Your task to perform on an android device: open app "TextNow: Call + Text Unlimited" (install if not already installed), go to login, and select forgot password Image 0: 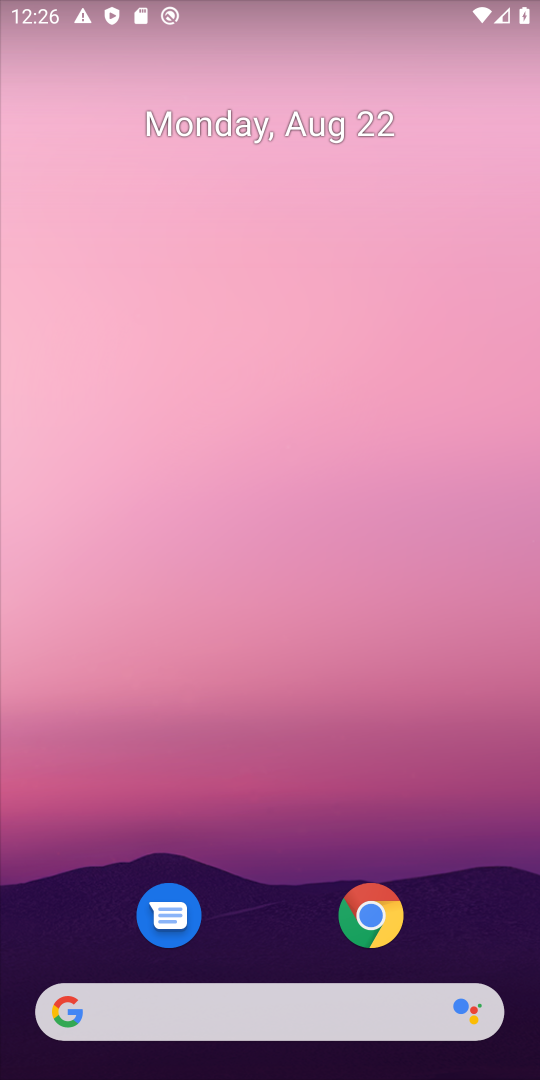
Step 0: drag from (306, 953) to (354, 1045)
Your task to perform on an android device: open app "TextNow: Call + Text Unlimited" (install if not already installed), go to login, and select forgot password Image 1: 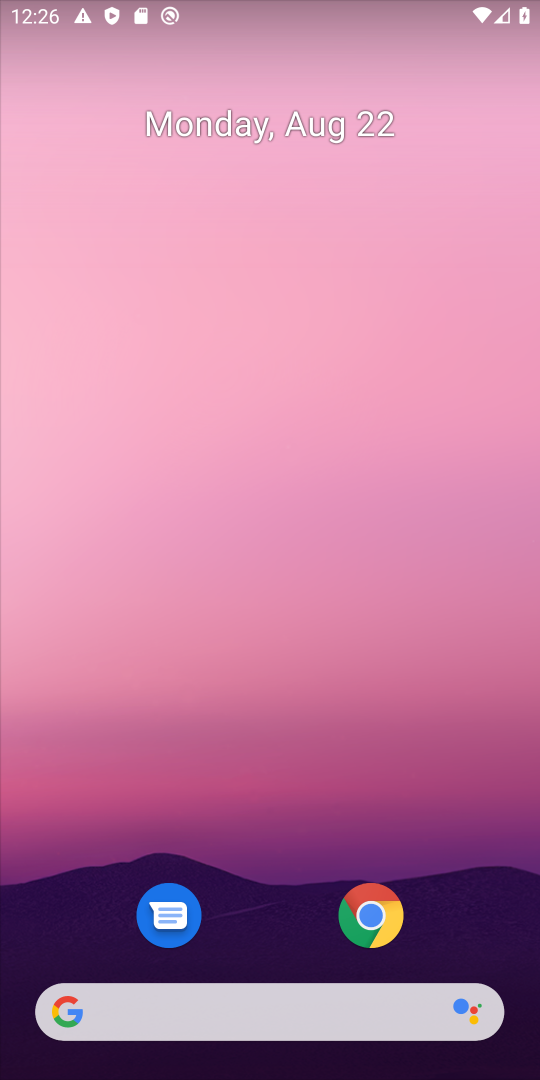
Step 1: drag from (279, 946) to (222, 0)
Your task to perform on an android device: open app "TextNow: Call + Text Unlimited" (install if not already installed), go to login, and select forgot password Image 2: 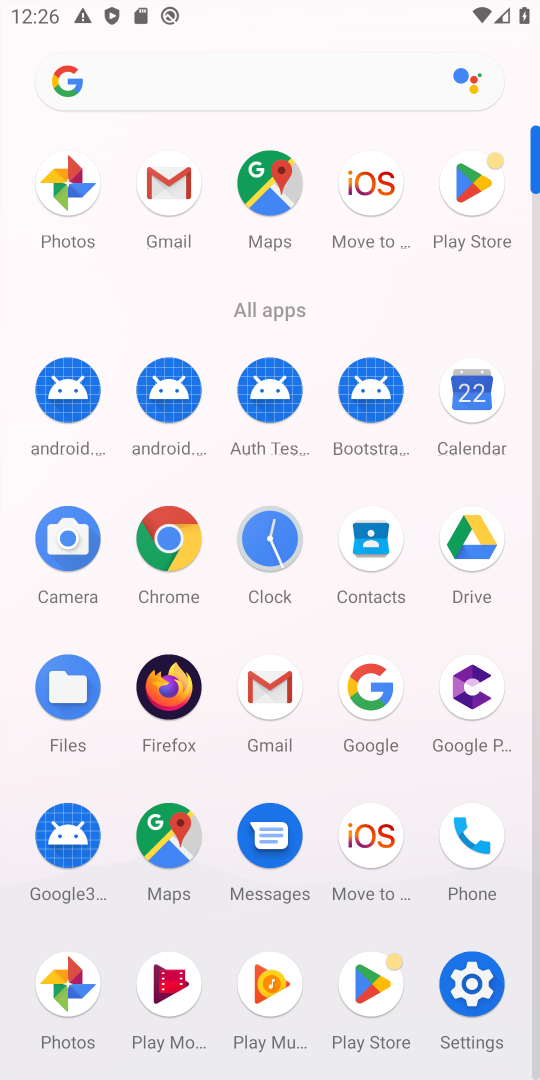
Step 2: click (358, 969)
Your task to perform on an android device: open app "TextNow: Call + Text Unlimited" (install if not already installed), go to login, and select forgot password Image 3: 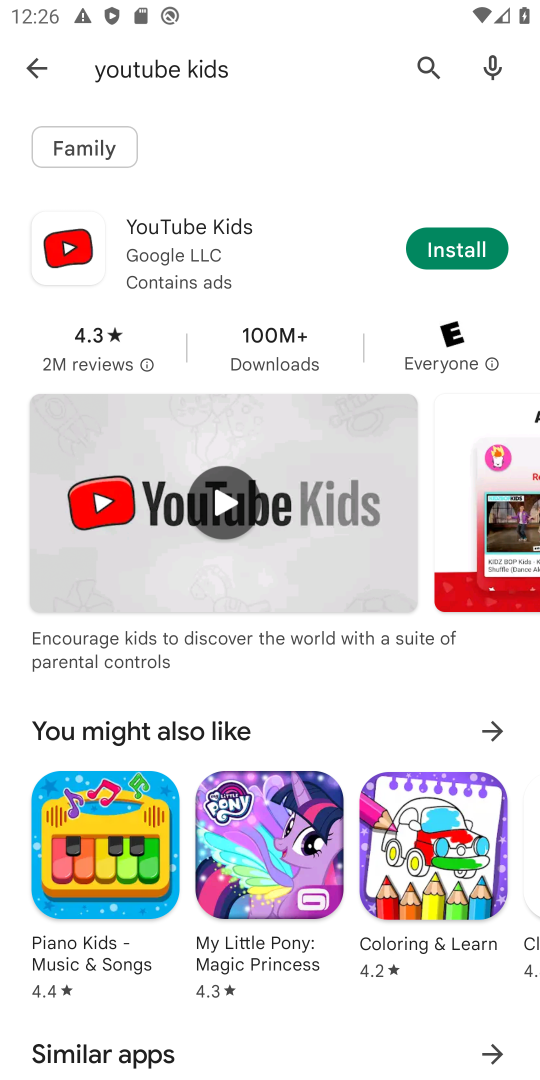
Step 3: click (27, 60)
Your task to perform on an android device: open app "TextNow: Call + Text Unlimited" (install if not already installed), go to login, and select forgot password Image 4: 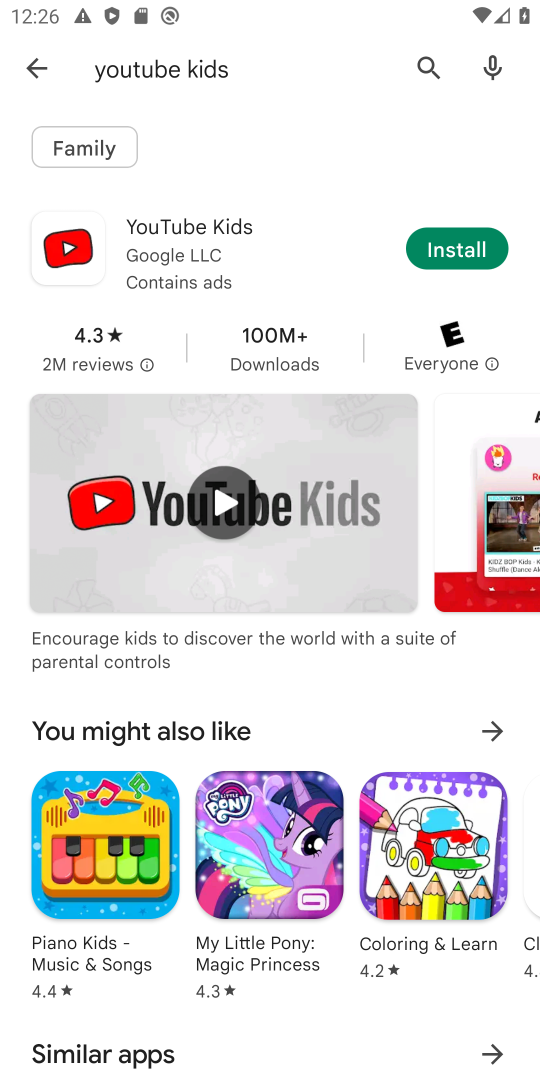
Step 4: click (40, 67)
Your task to perform on an android device: open app "TextNow: Call + Text Unlimited" (install if not already installed), go to login, and select forgot password Image 5: 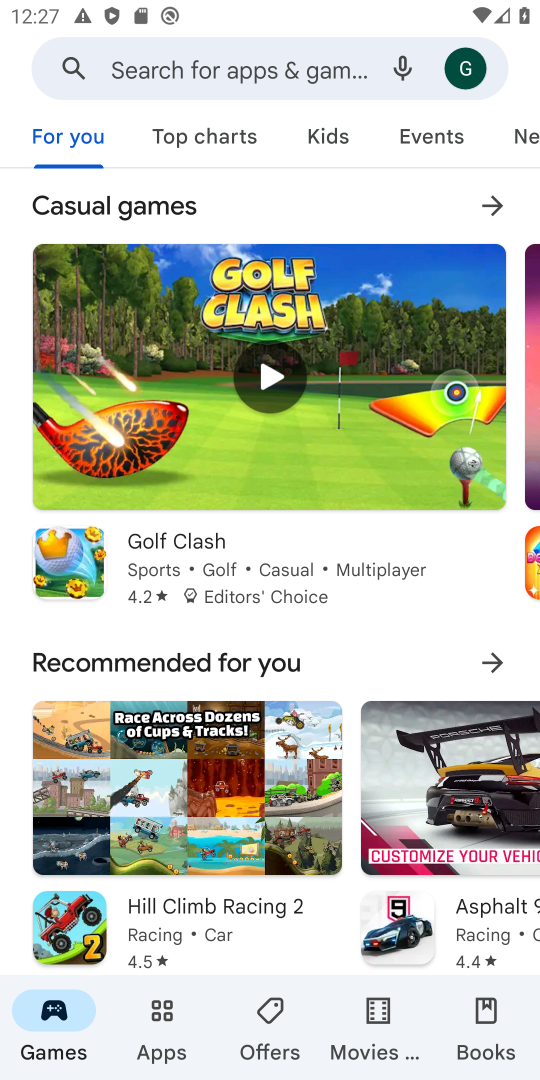
Step 5: click (144, 54)
Your task to perform on an android device: open app "TextNow: Call + Text Unlimited" (install if not already installed), go to login, and select forgot password Image 6: 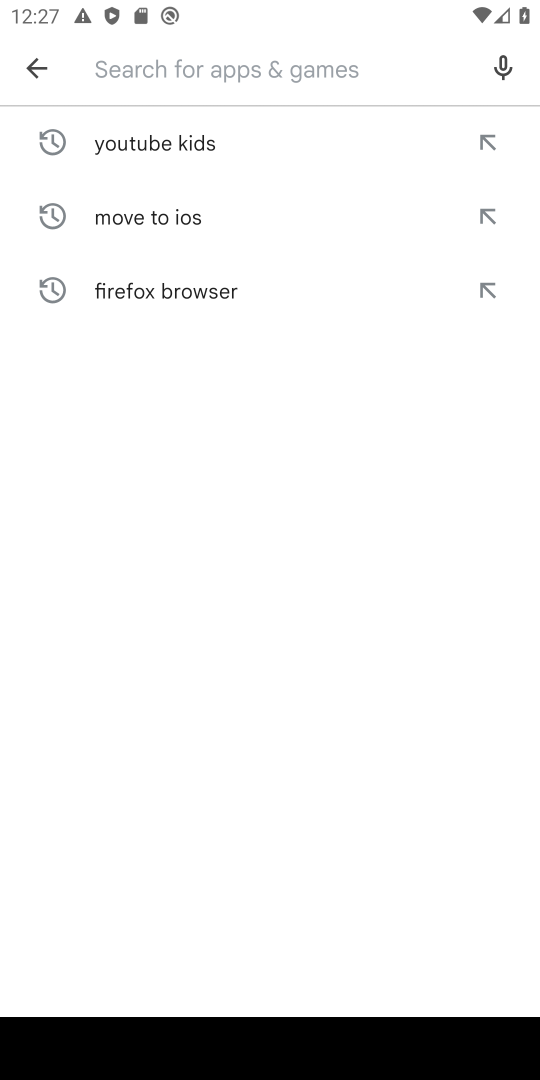
Step 6: type "TextNow: Call + Text Unlimited"
Your task to perform on an android device: open app "TextNow: Call + Text Unlimited" (install if not already installed), go to login, and select forgot password Image 7: 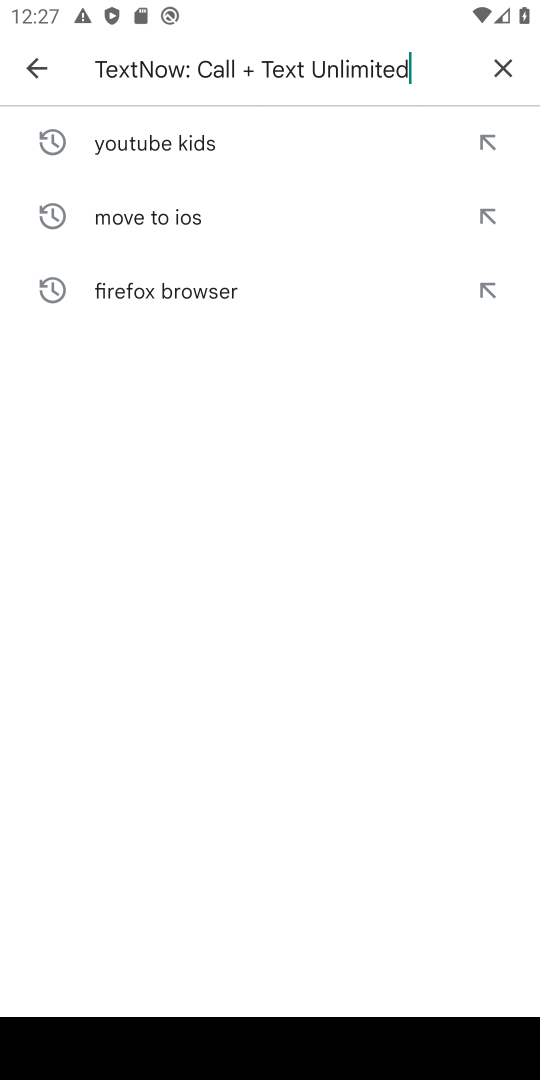
Step 7: type ""
Your task to perform on an android device: open app "TextNow: Call + Text Unlimited" (install if not already installed), go to login, and select forgot password Image 8: 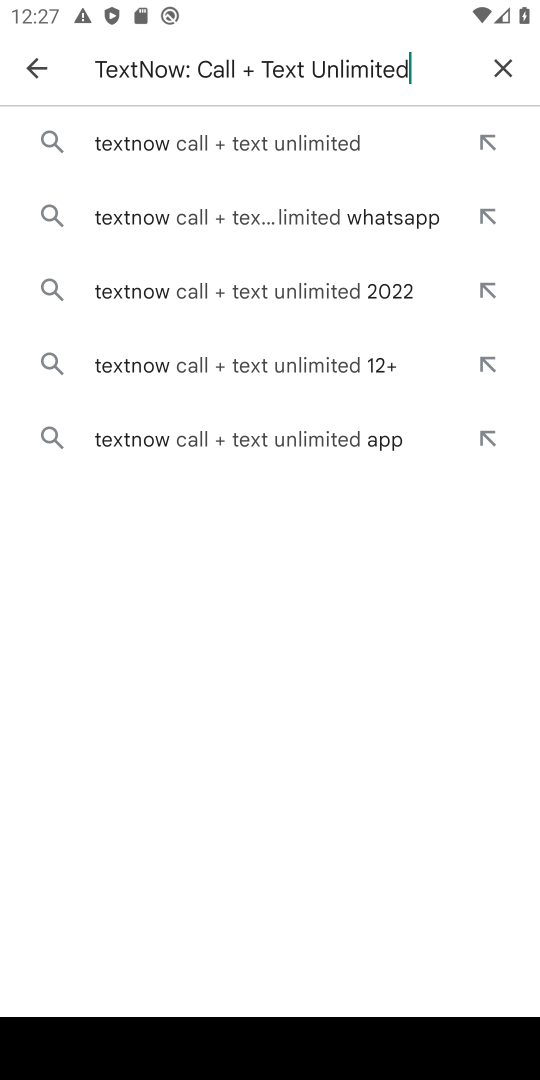
Step 8: click (184, 154)
Your task to perform on an android device: open app "TextNow: Call + Text Unlimited" (install if not already installed), go to login, and select forgot password Image 9: 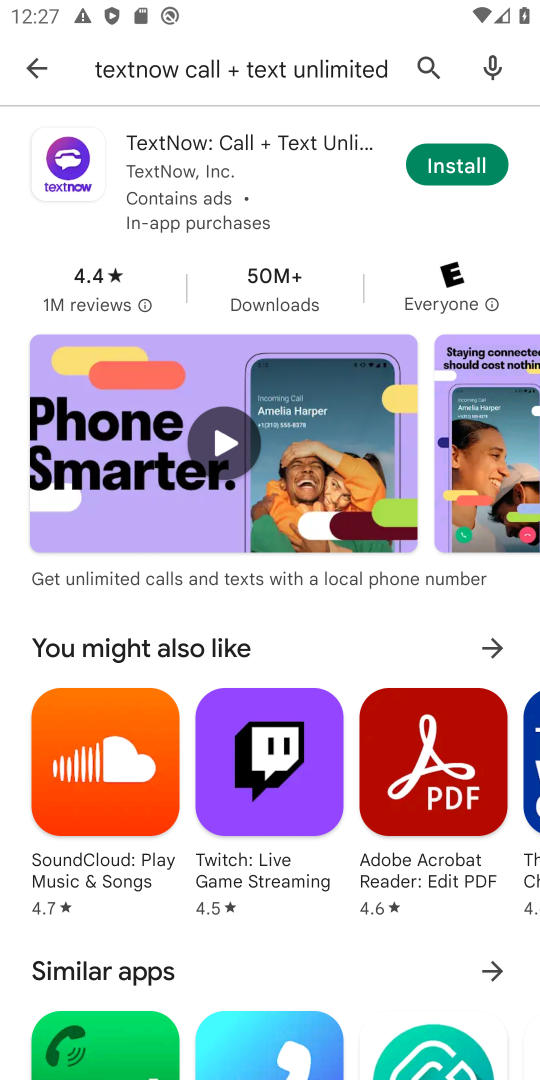
Step 9: click (440, 158)
Your task to perform on an android device: open app "TextNow: Call + Text Unlimited" (install if not already installed), go to login, and select forgot password Image 10: 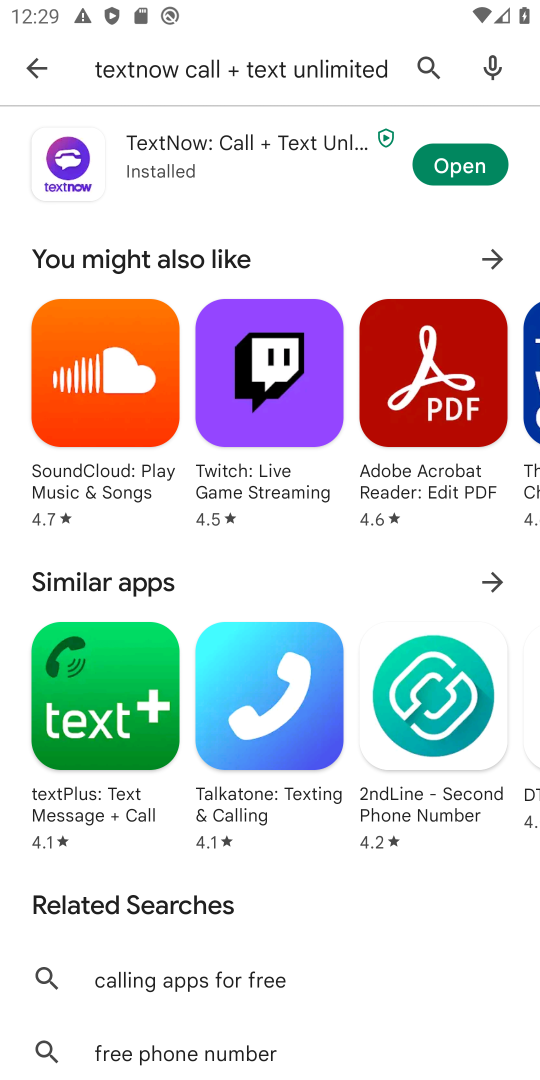
Step 10: click (458, 156)
Your task to perform on an android device: open app "TextNow: Call + Text Unlimited" (install if not already installed), go to login, and select forgot password Image 11: 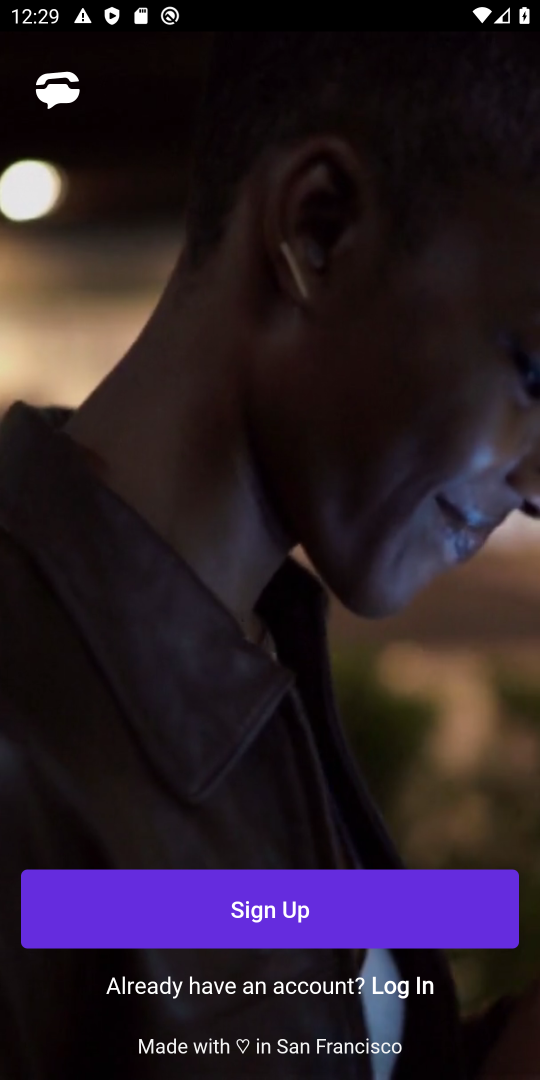
Step 11: click (401, 984)
Your task to perform on an android device: open app "TextNow: Call + Text Unlimited" (install if not already installed), go to login, and select forgot password Image 12: 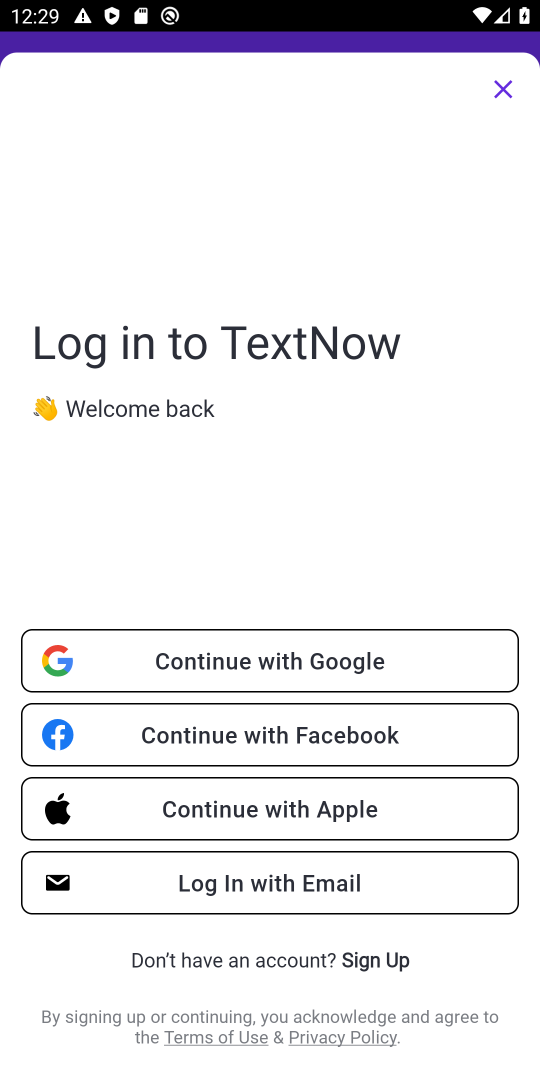
Step 12: click (361, 961)
Your task to perform on an android device: open app "TextNow: Call + Text Unlimited" (install if not already installed), go to login, and select forgot password Image 13: 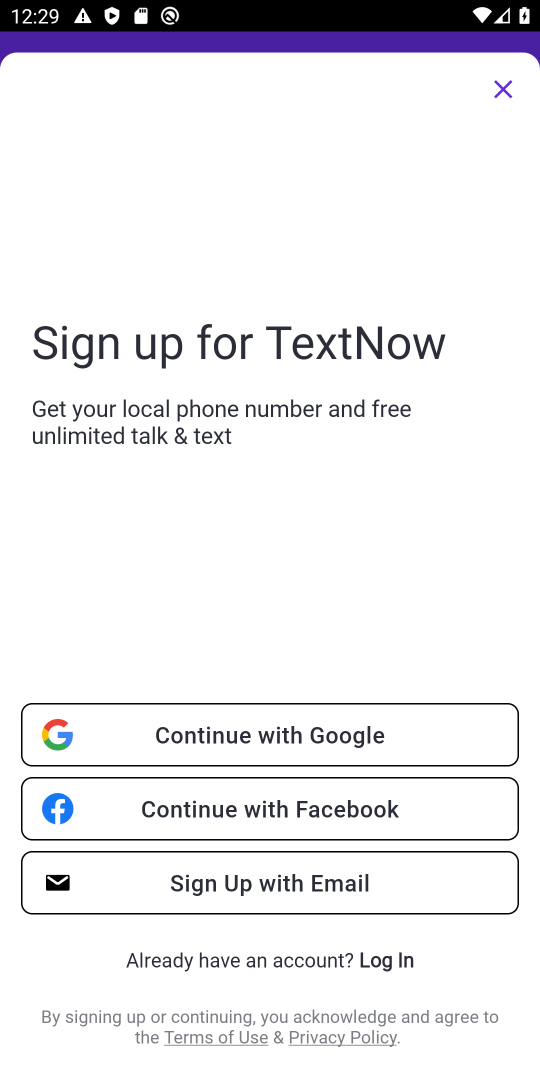
Step 13: click (377, 964)
Your task to perform on an android device: open app "TextNow: Call + Text Unlimited" (install if not already installed), go to login, and select forgot password Image 14: 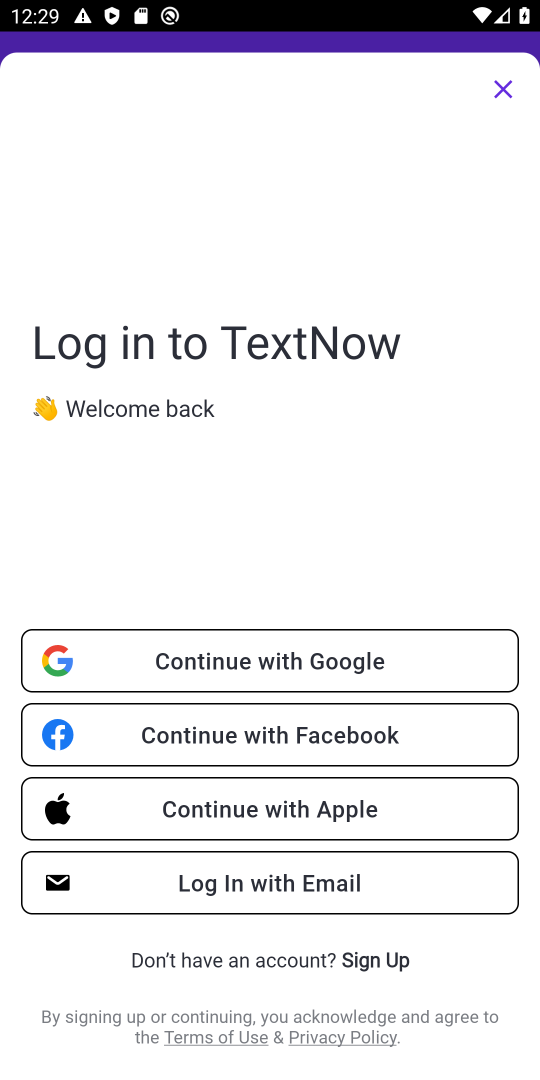
Step 14: click (260, 818)
Your task to perform on an android device: open app "TextNow: Call + Text Unlimited" (install if not already installed), go to login, and select forgot password Image 15: 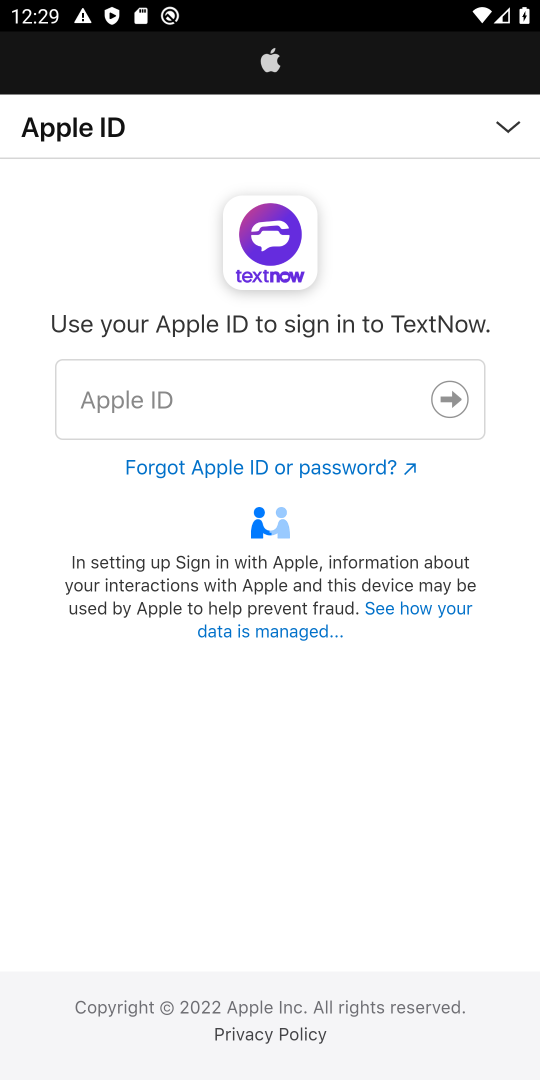
Step 15: click (334, 458)
Your task to perform on an android device: open app "TextNow: Call + Text Unlimited" (install if not already installed), go to login, and select forgot password Image 16: 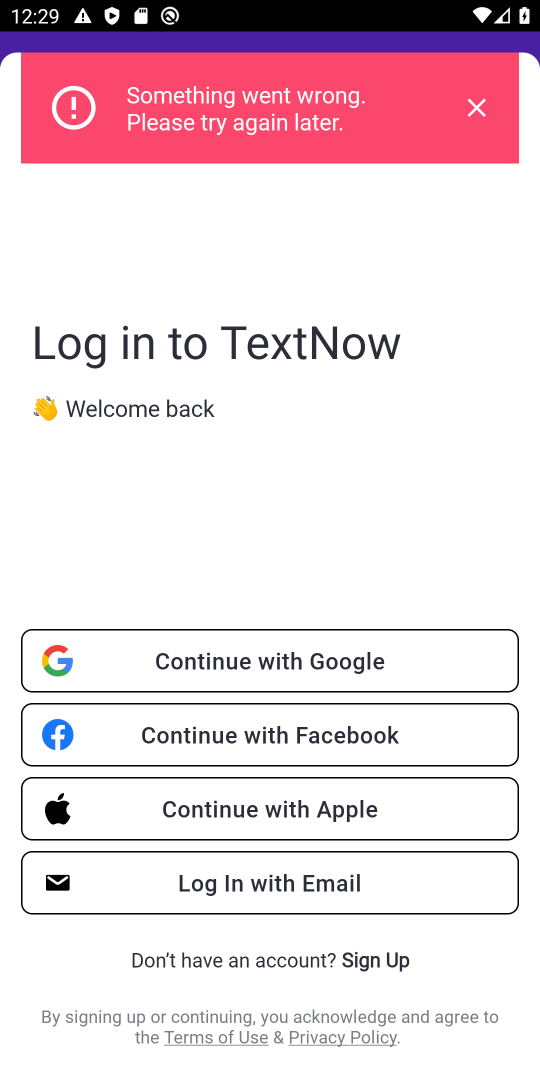
Step 16: task complete